Your task to perform on an android device: When is my next appointment? Image 0: 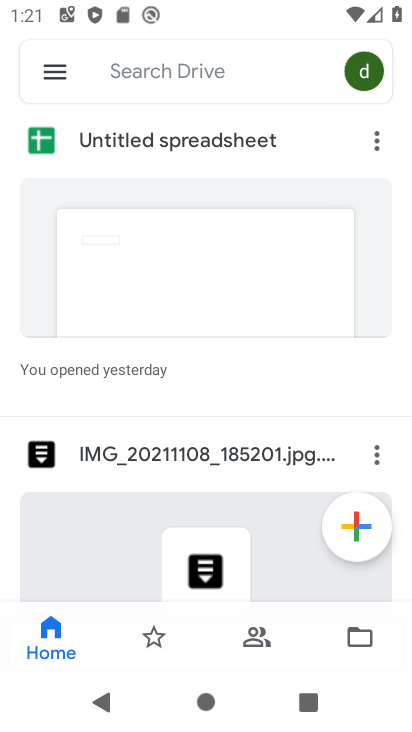
Step 0: press home button
Your task to perform on an android device: When is my next appointment? Image 1: 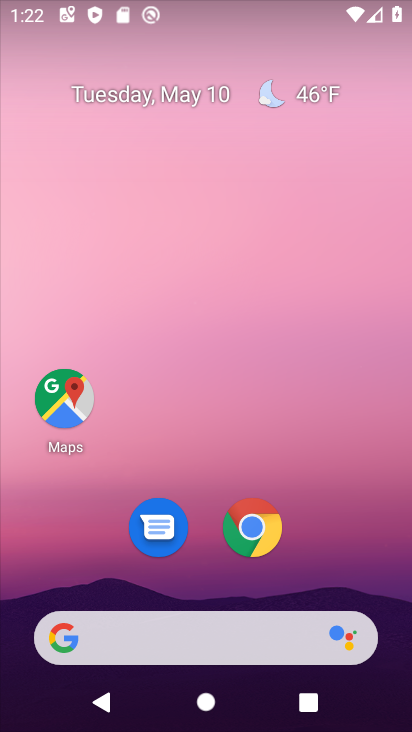
Step 1: drag from (363, 572) to (382, 0)
Your task to perform on an android device: When is my next appointment? Image 2: 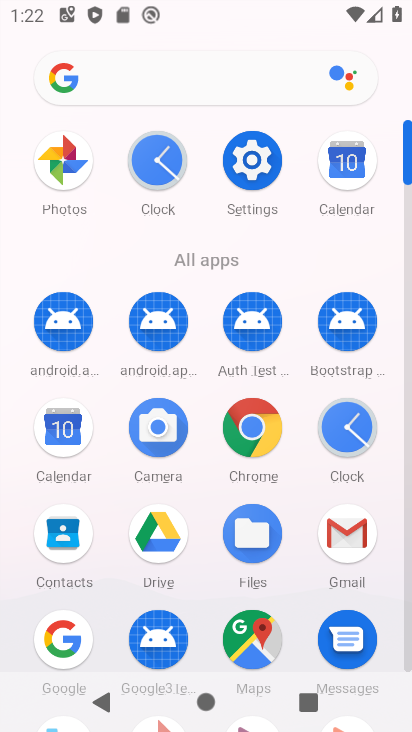
Step 2: click (348, 161)
Your task to perform on an android device: When is my next appointment? Image 3: 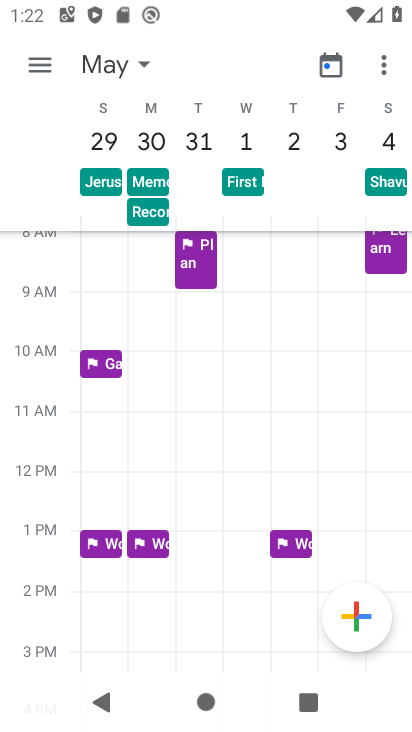
Step 3: click (139, 62)
Your task to perform on an android device: When is my next appointment? Image 4: 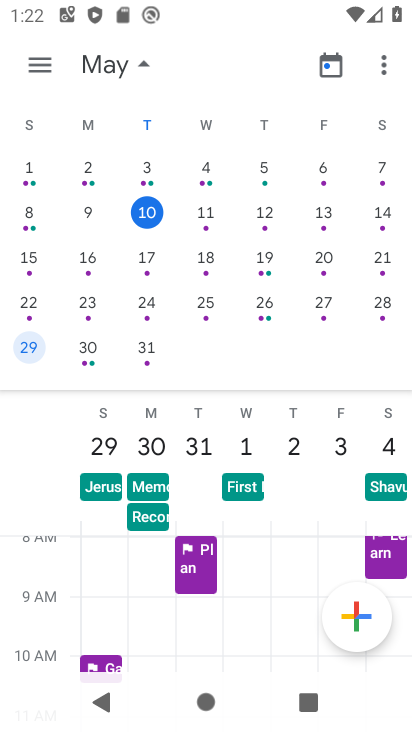
Step 4: click (36, 66)
Your task to perform on an android device: When is my next appointment? Image 5: 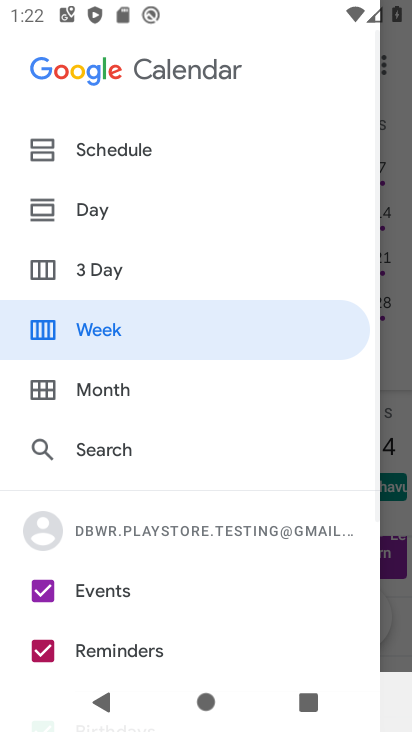
Step 5: click (80, 151)
Your task to perform on an android device: When is my next appointment? Image 6: 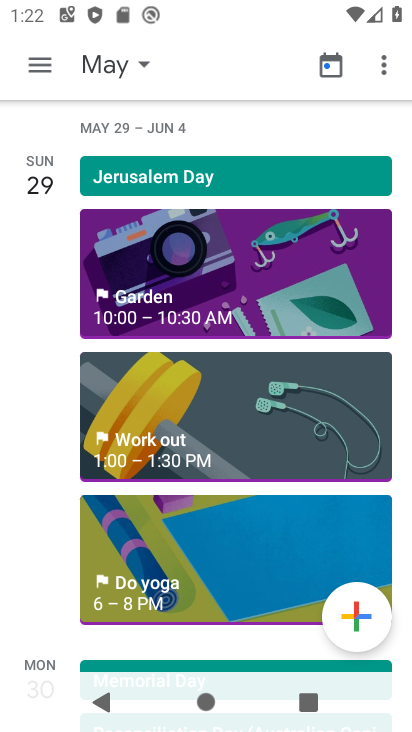
Step 6: drag from (132, 173) to (149, 716)
Your task to perform on an android device: When is my next appointment? Image 7: 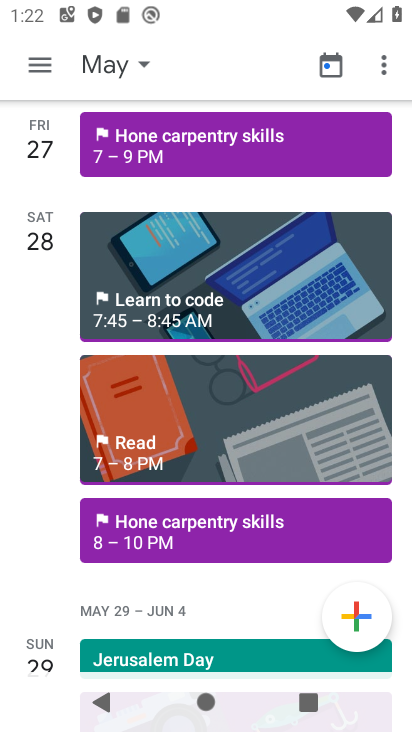
Step 7: click (143, 68)
Your task to perform on an android device: When is my next appointment? Image 8: 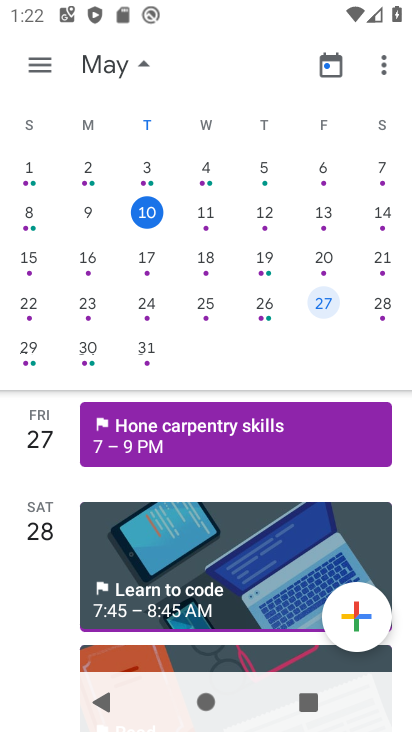
Step 8: click (83, 211)
Your task to perform on an android device: When is my next appointment? Image 9: 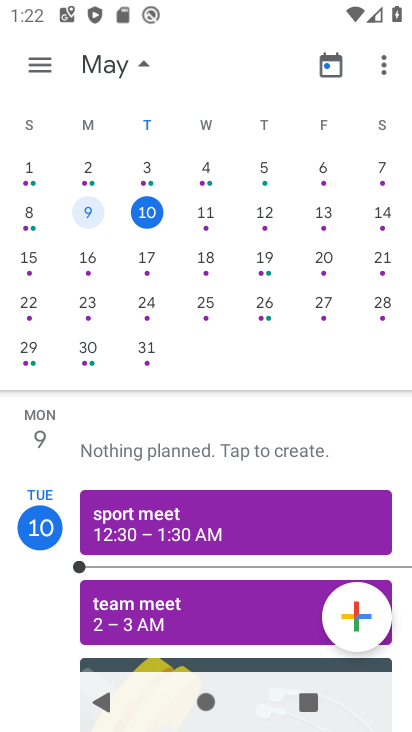
Step 9: drag from (183, 541) to (183, 472)
Your task to perform on an android device: When is my next appointment? Image 10: 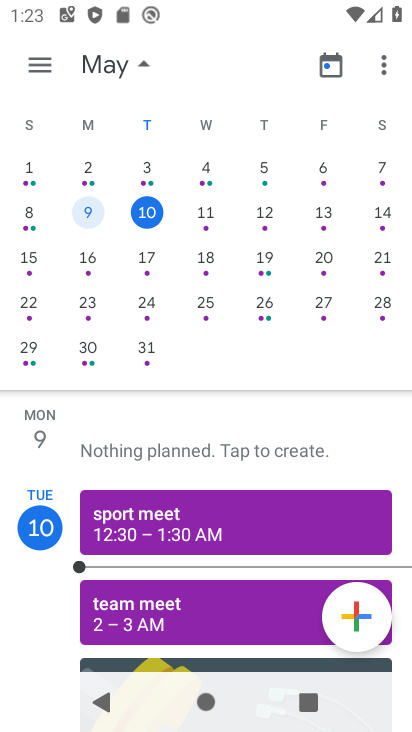
Step 10: click (173, 538)
Your task to perform on an android device: When is my next appointment? Image 11: 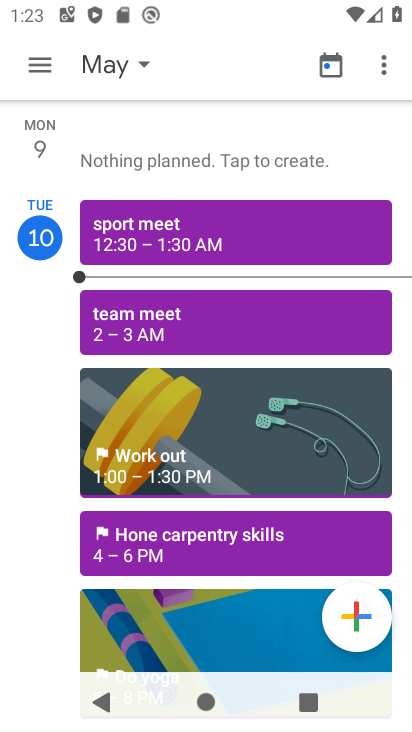
Step 11: click (186, 251)
Your task to perform on an android device: When is my next appointment? Image 12: 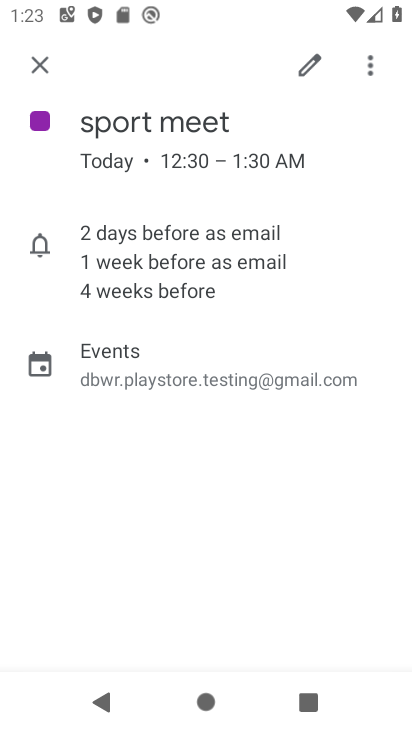
Step 12: task complete